Your task to perform on an android device: Do I have any events today? Image 0: 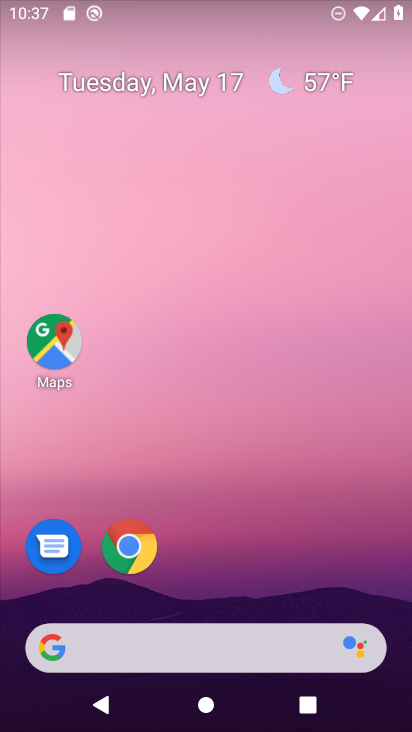
Step 0: drag from (247, 566) to (257, 23)
Your task to perform on an android device: Do I have any events today? Image 1: 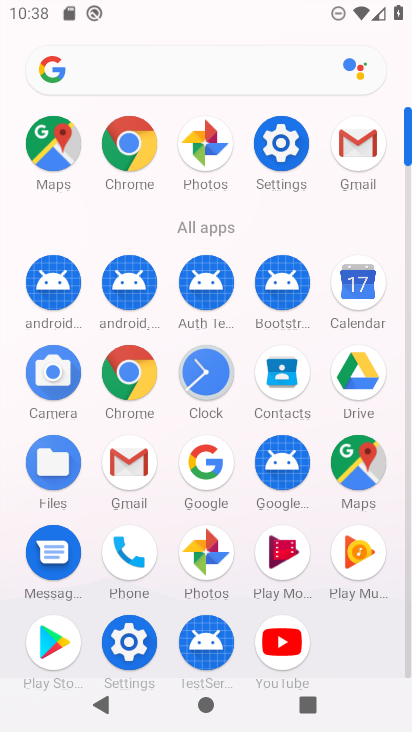
Step 1: click (363, 291)
Your task to perform on an android device: Do I have any events today? Image 2: 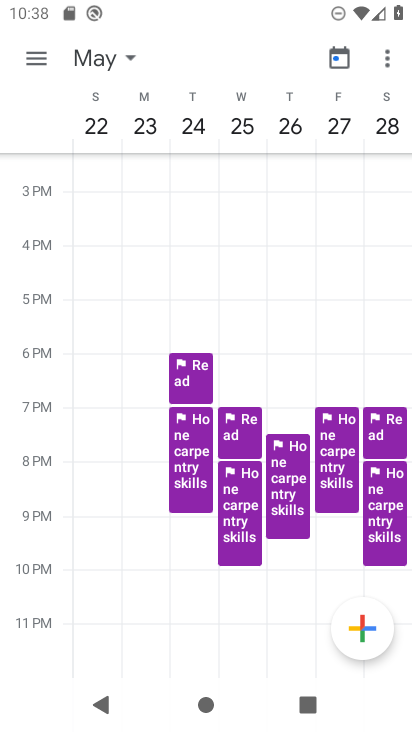
Step 2: click (39, 60)
Your task to perform on an android device: Do I have any events today? Image 3: 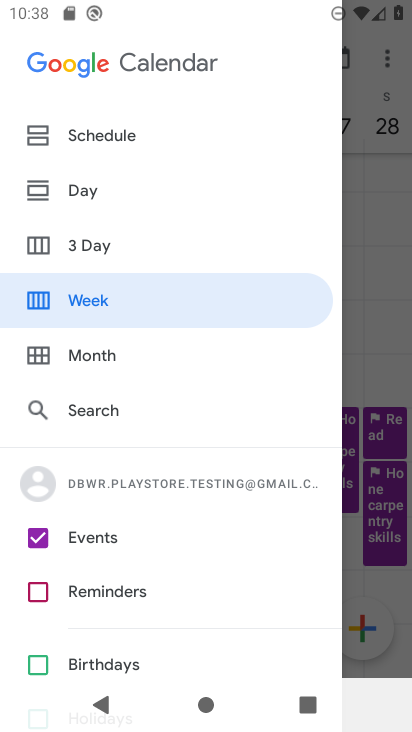
Step 3: click (70, 184)
Your task to perform on an android device: Do I have any events today? Image 4: 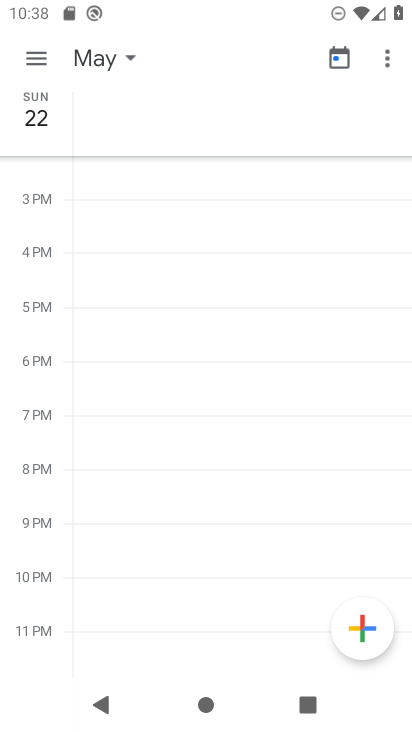
Step 4: click (127, 59)
Your task to perform on an android device: Do I have any events today? Image 5: 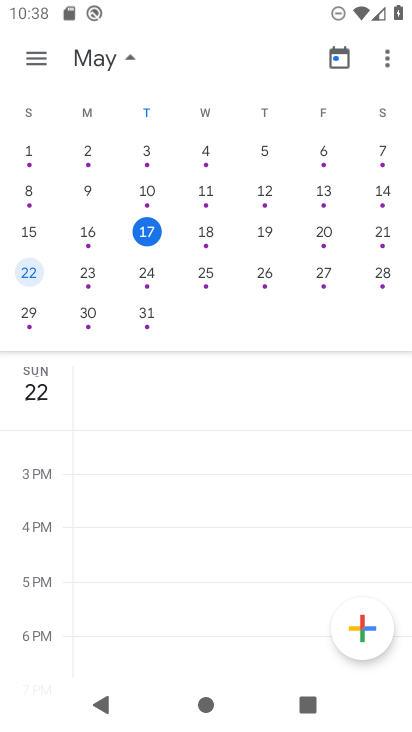
Step 5: click (133, 225)
Your task to perform on an android device: Do I have any events today? Image 6: 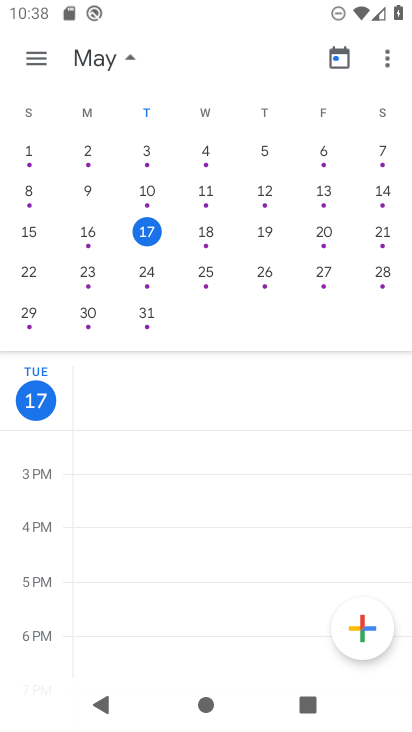
Step 6: task complete